Your task to perform on an android device: delete the emails in spam in the gmail app Image 0: 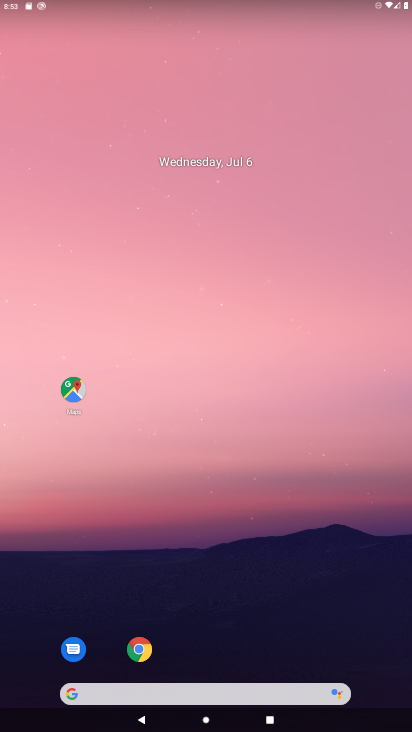
Step 0: drag from (345, 716) to (310, 310)
Your task to perform on an android device: delete the emails in spam in the gmail app Image 1: 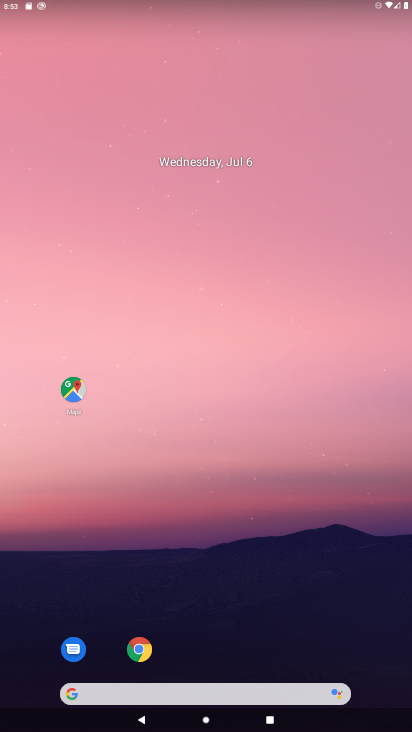
Step 1: drag from (314, 629) to (311, 407)
Your task to perform on an android device: delete the emails in spam in the gmail app Image 2: 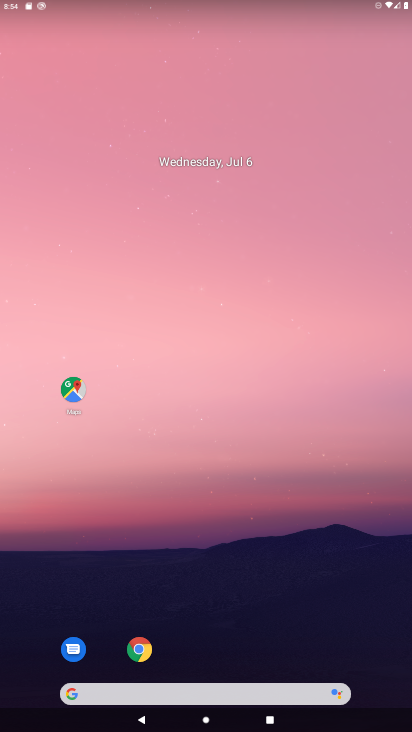
Step 2: drag from (321, 723) to (246, 240)
Your task to perform on an android device: delete the emails in spam in the gmail app Image 3: 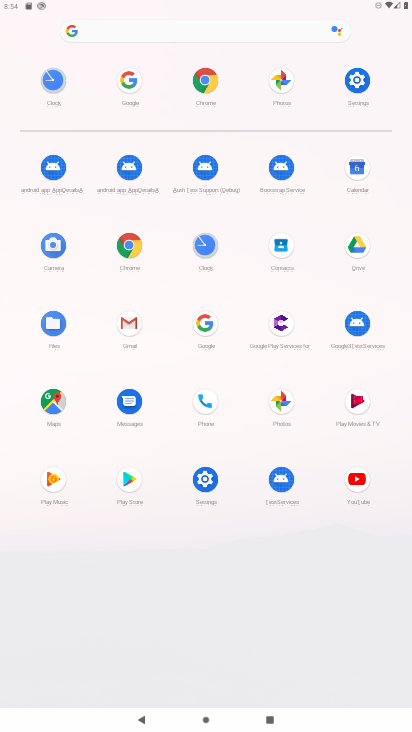
Step 3: click (130, 320)
Your task to perform on an android device: delete the emails in spam in the gmail app Image 4: 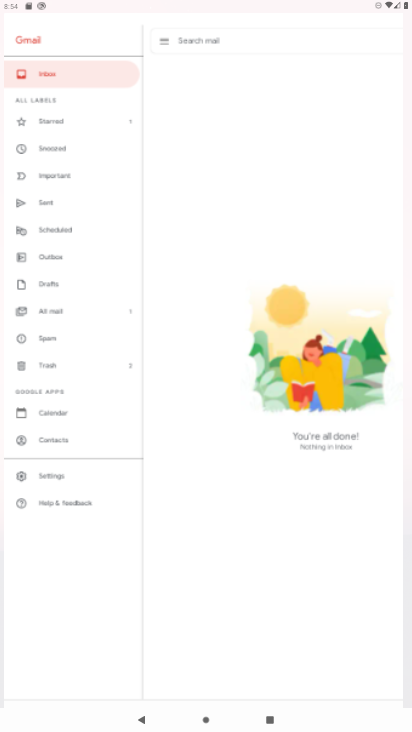
Step 4: click (130, 320)
Your task to perform on an android device: delete the emails in spam in the gmail app Image 5: 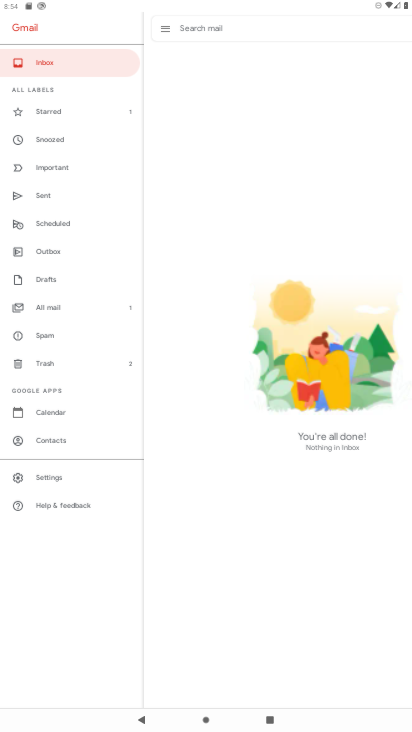
Step 5: click (129, 319)
Your task to perform on an android device: delete the emails in spam in the gmail app Image 6: 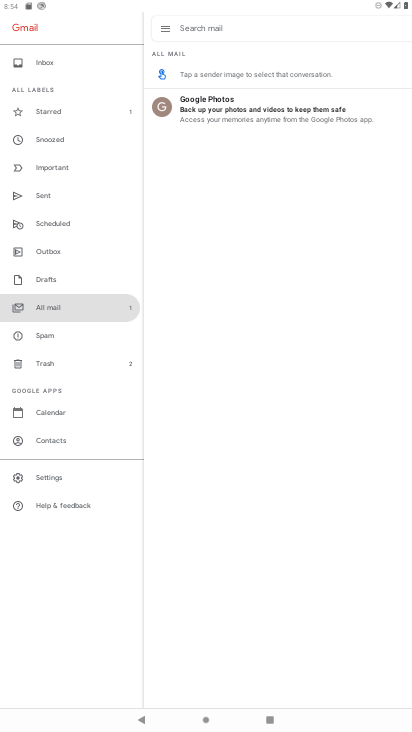
Step 6: click (92, 309)
Your task to perform on an android device: delete the emails in spam in the gmail app Image 7: 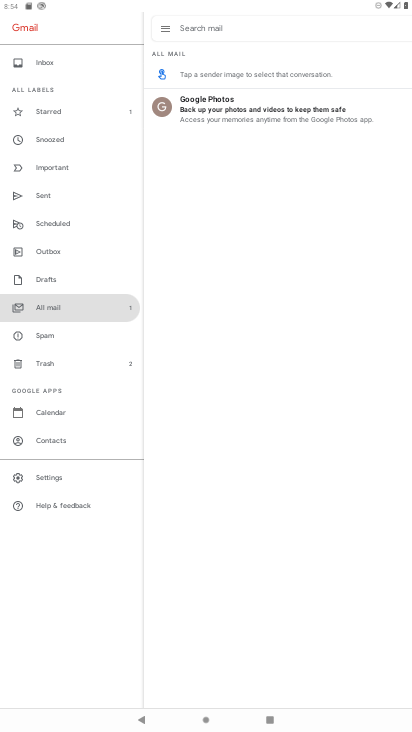
Step 7: click (163, 33)
Your task to perform on an android device: delete the emails in spam in the gmail app Image 8: 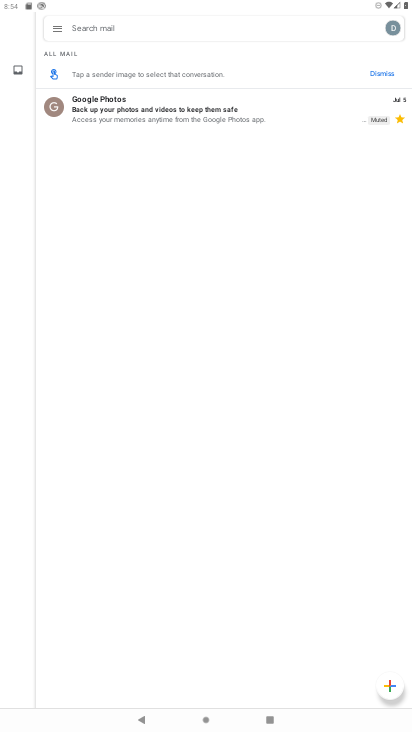
Step 8: click (146, 104)
Your task to perform on an android device: delete the emails in spam in the gmail app Image 9: 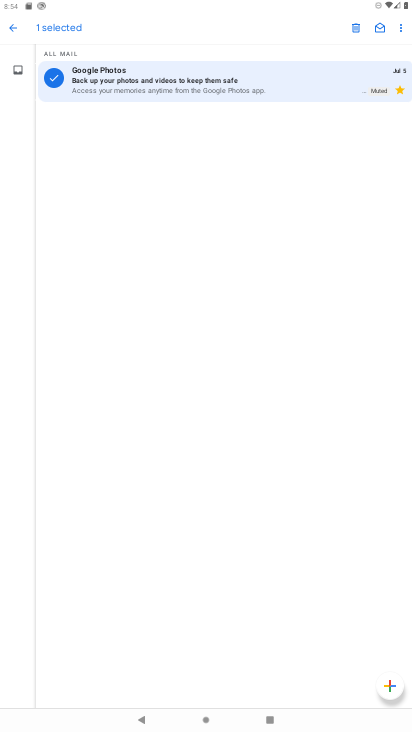
Step 9: click (8, 26)
Your task to perform on an android device: delete the emails in spam in the gmail app Image 10: 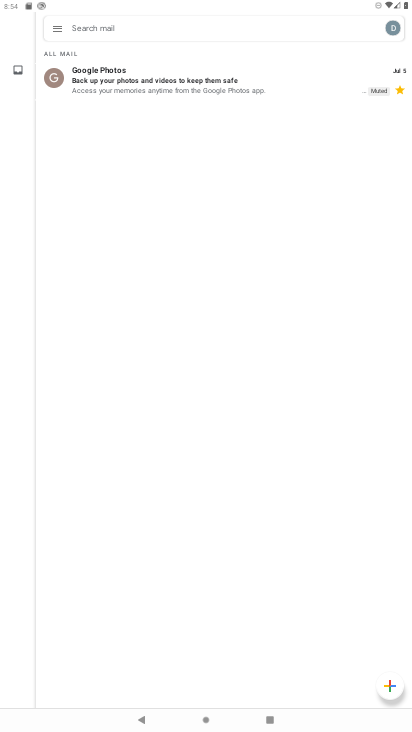
Step 10: click (59, 29)
Your task to perform on an android device: delete the emails in spam in the gmail app Image 11: 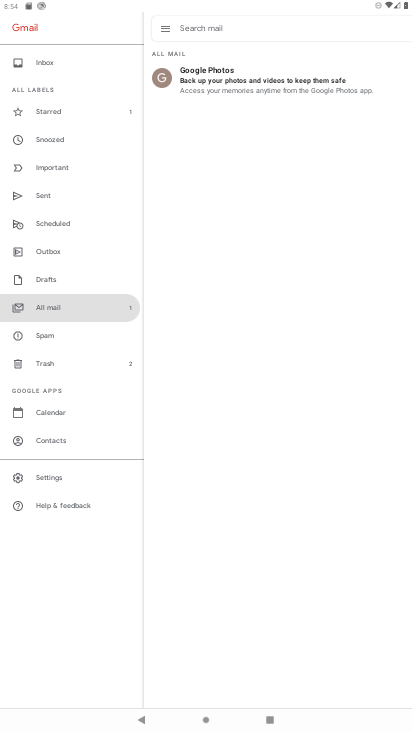
Step 11: click (44, 335)
Your task to perform on an android device: delete the emails in spam in the gmail app Image 12: 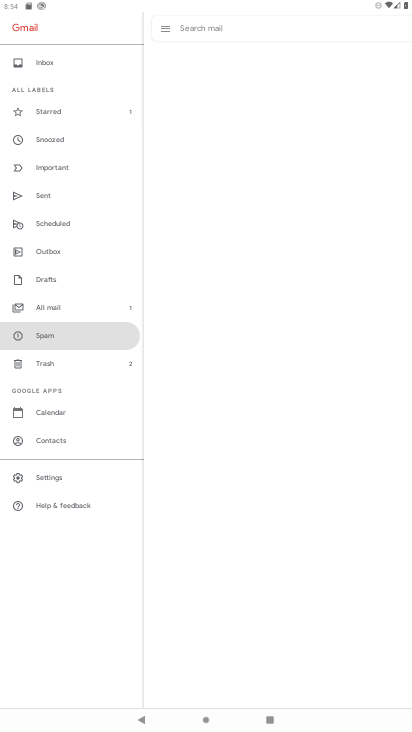
Step 12: click (44, 335)
Your task to perform on an android device: delete the emails in spam in the gmail app Image 13: 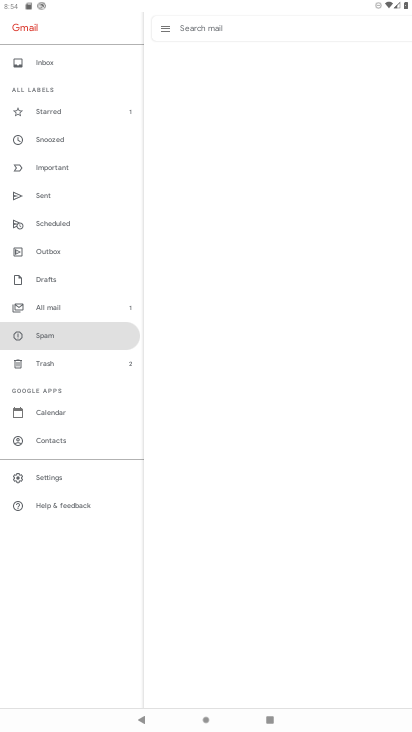
Step 13: click (44, 335)
Your task to perform on an android device: delete the emails in spam in the gmail app Image 14: 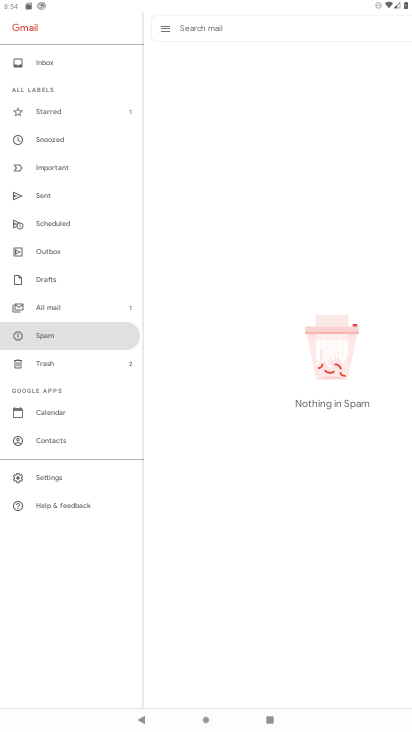
Step 14: task complete